Your task to perform on an android device: set the stopwatch Image 0: 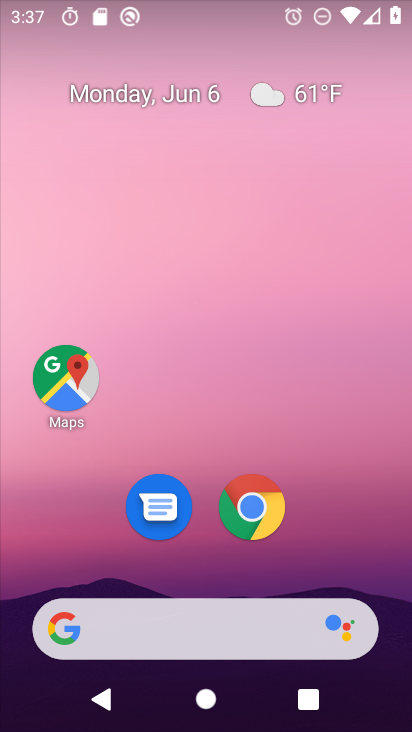
Step 0: drag from (198, 558) to (201, 187)
Your task to perform on an android device: set the stopwatch Image 1: 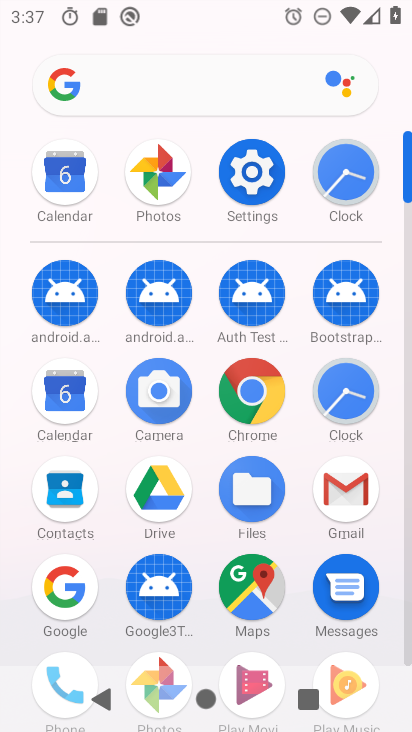
Step 1: click (336, 193)
Your task to perform on an android device: set the stopwatch Image 2: 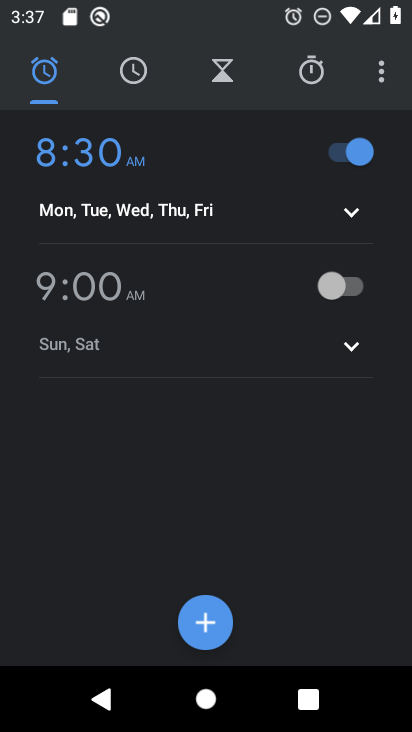
Step 2: click (300, 79)
Your task to perform on an android device: set the stopwatch Image 3: 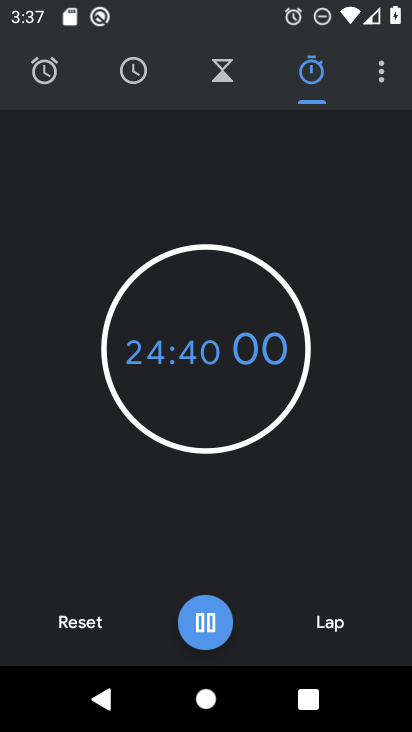
Step 3: task complete